Your task to perform on an android device: Go to battery settings Image 0: 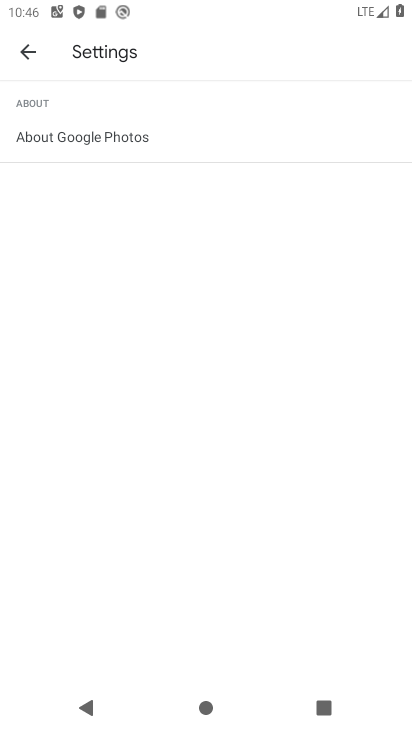
Step 0: press back button
Your task to perform on an android device: Go to battery settings Image 1: 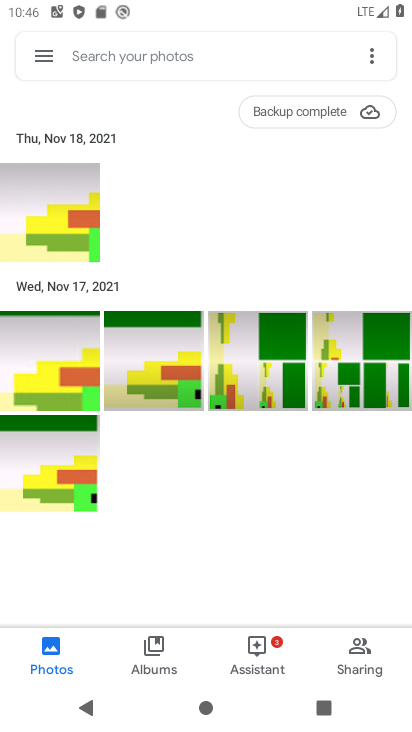
Step 1: press home button
Your task to perform on an android device: Go to battery settings Image 2: 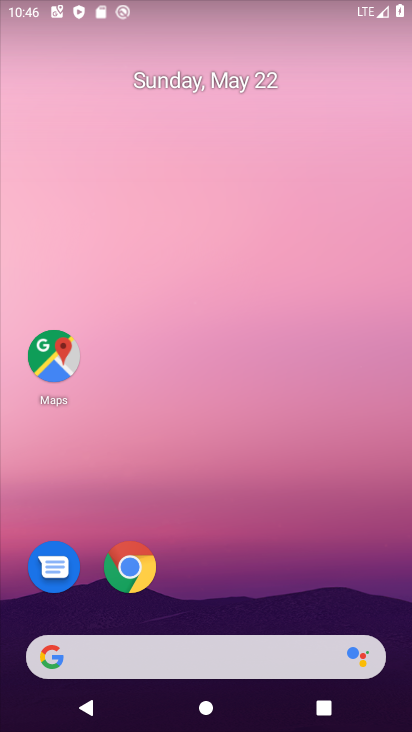
Step 2: drag from (278, 498) to (16, 78)
Your task to perform on an android device: Go to battery settings Image 3: 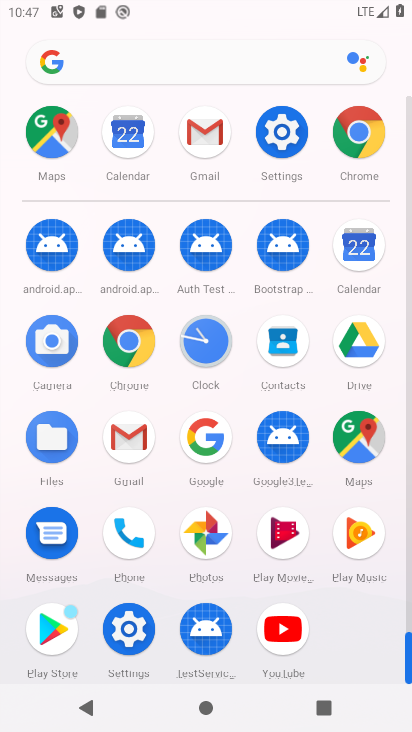
Step 3: click (282, 133)
Your task to perform on an android device: Go to battery settings Image 4: 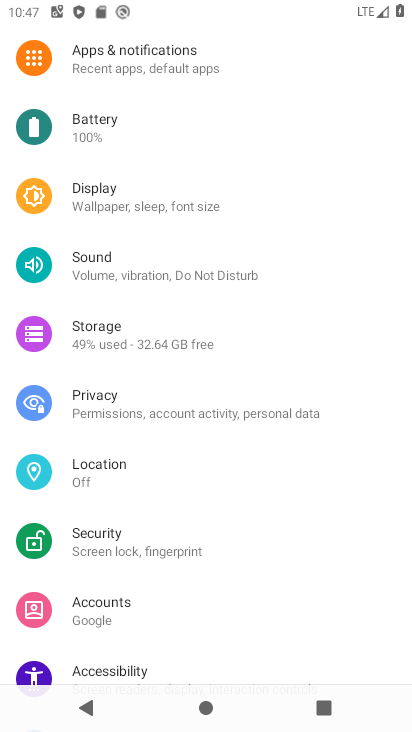
Step 4: click (102, 128)
Your task to perform on an android device: Go to battery settings Image 5: 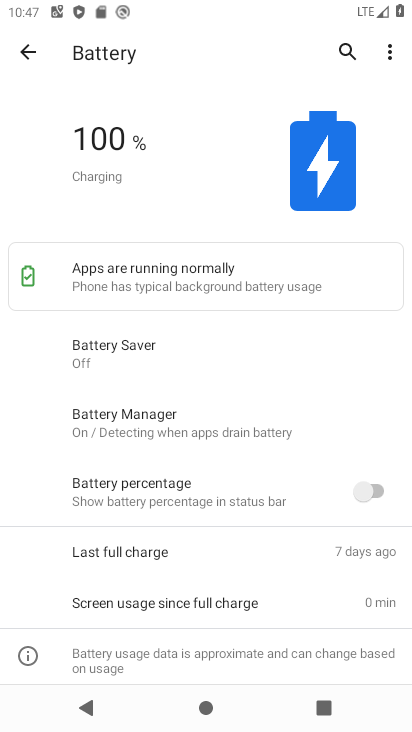
Step 5: task complete